Your task to perform on an android device: uninstall "Messages" Image 0: 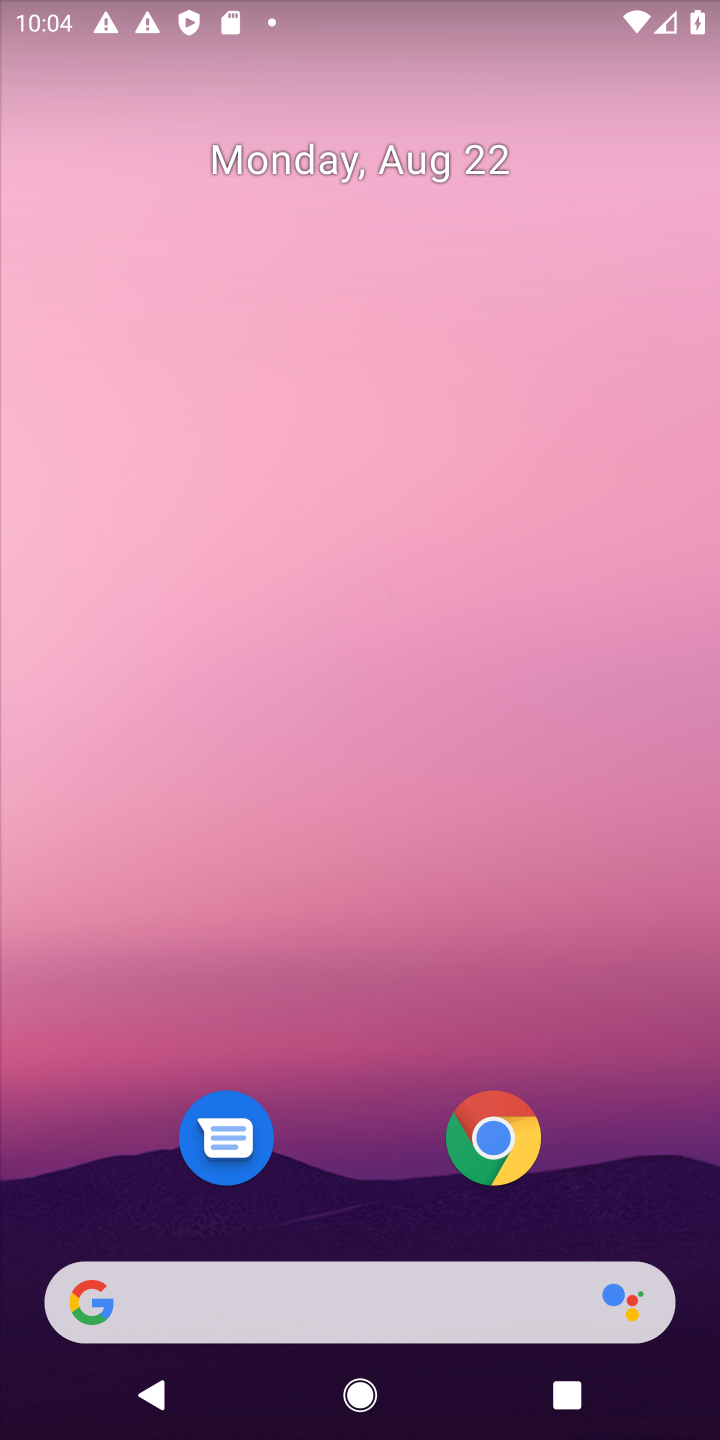
Step 0: press home button
Your task to perform on an android device: uninstall "Messages" Image 1: 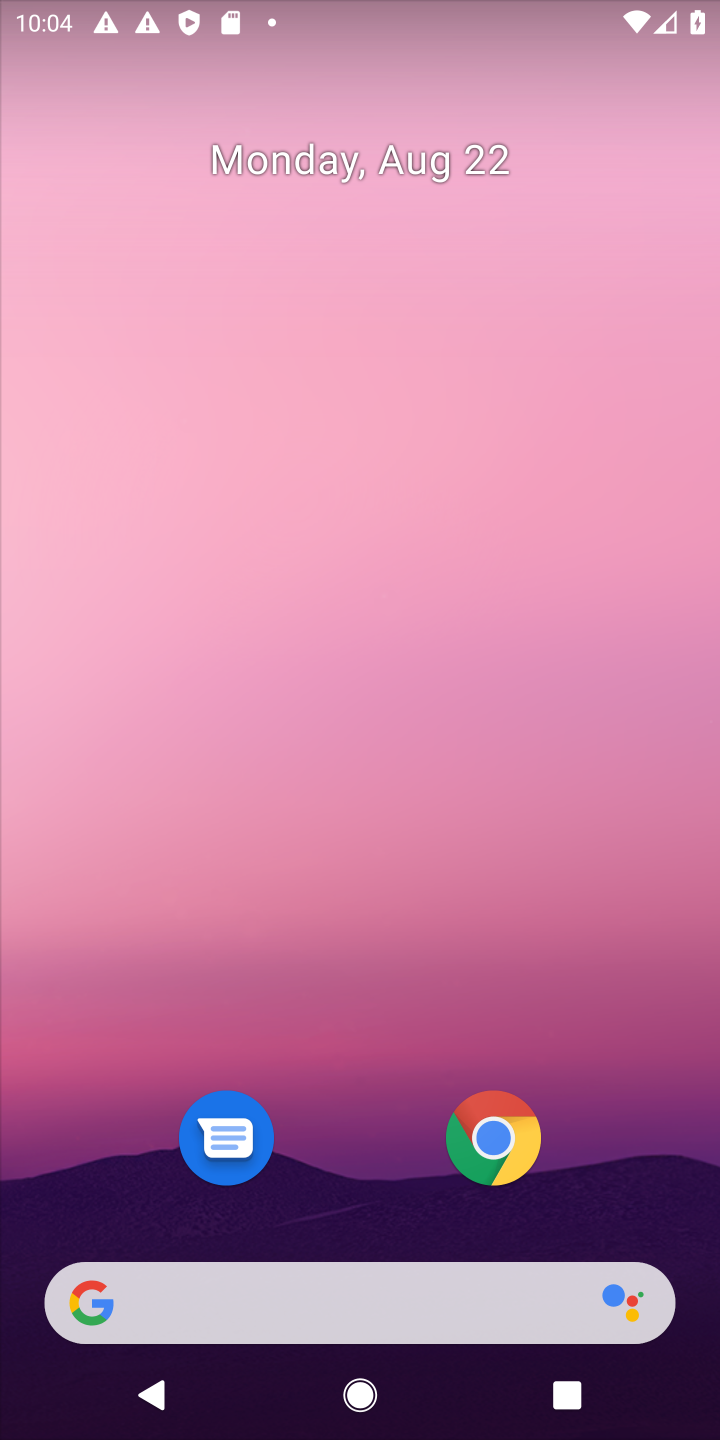
Step 1: drag from (599, 1020) to (580, 154)
Your task to perform on an android device: uninstall "Messages" Image 2: 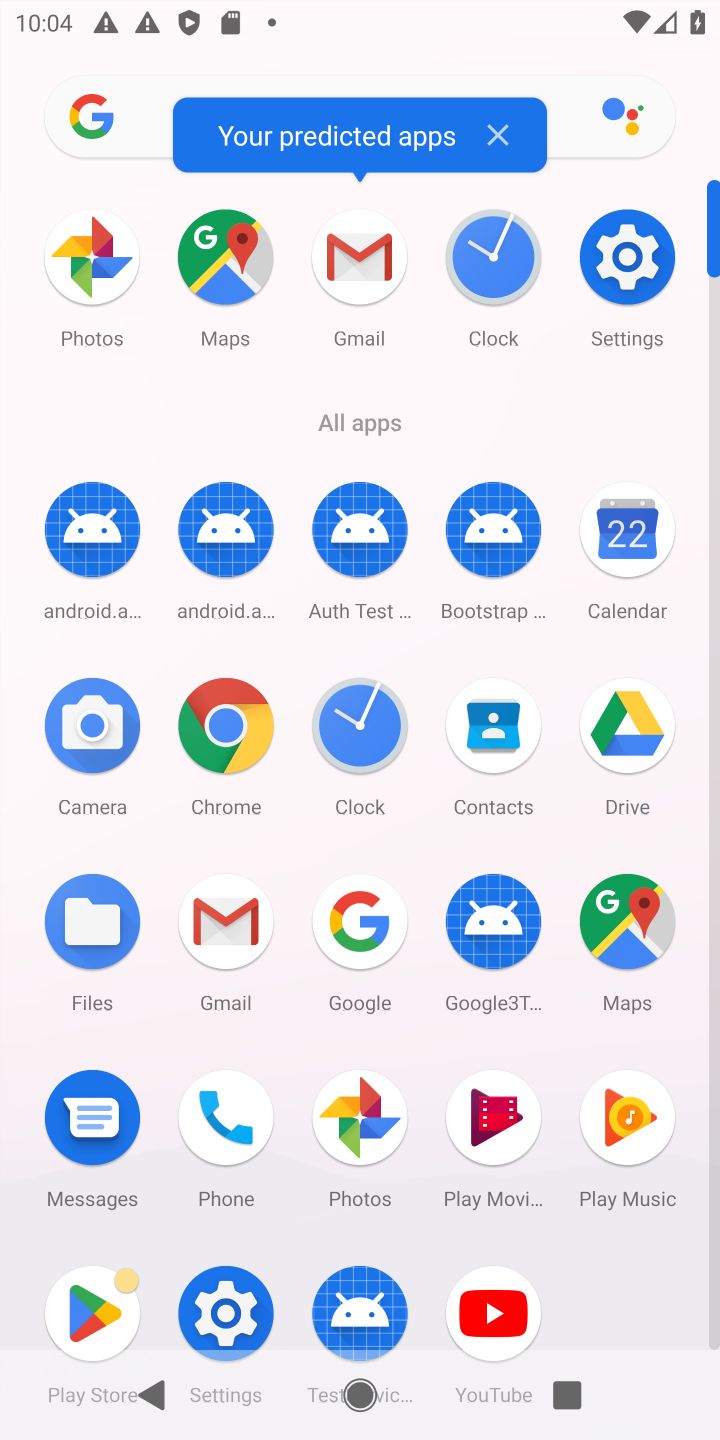
Step 2: click (94, 1298)
Your task to perform on an android device: uninstall "Messages" Image 3: 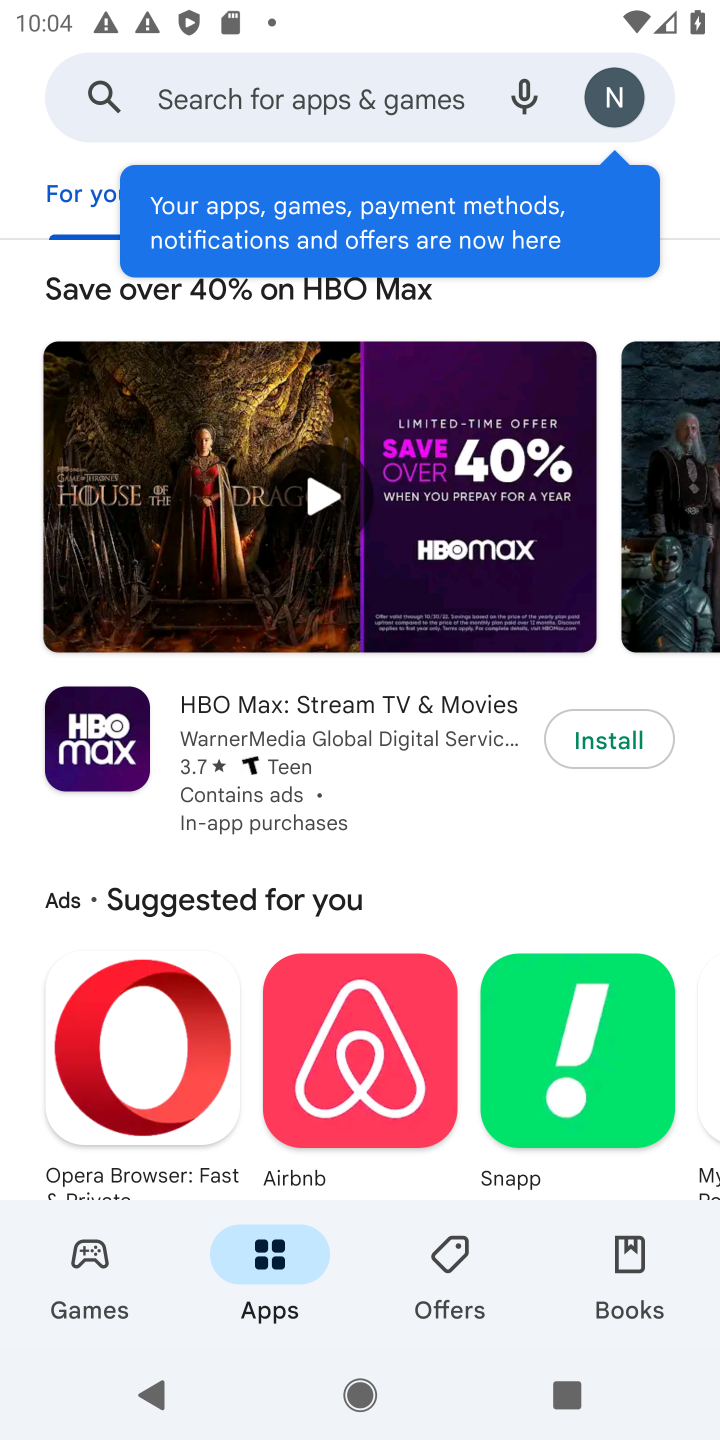
Step 3: click (251, 99)
Your task to perform on an android device: uninstall "Messages" Image 4: 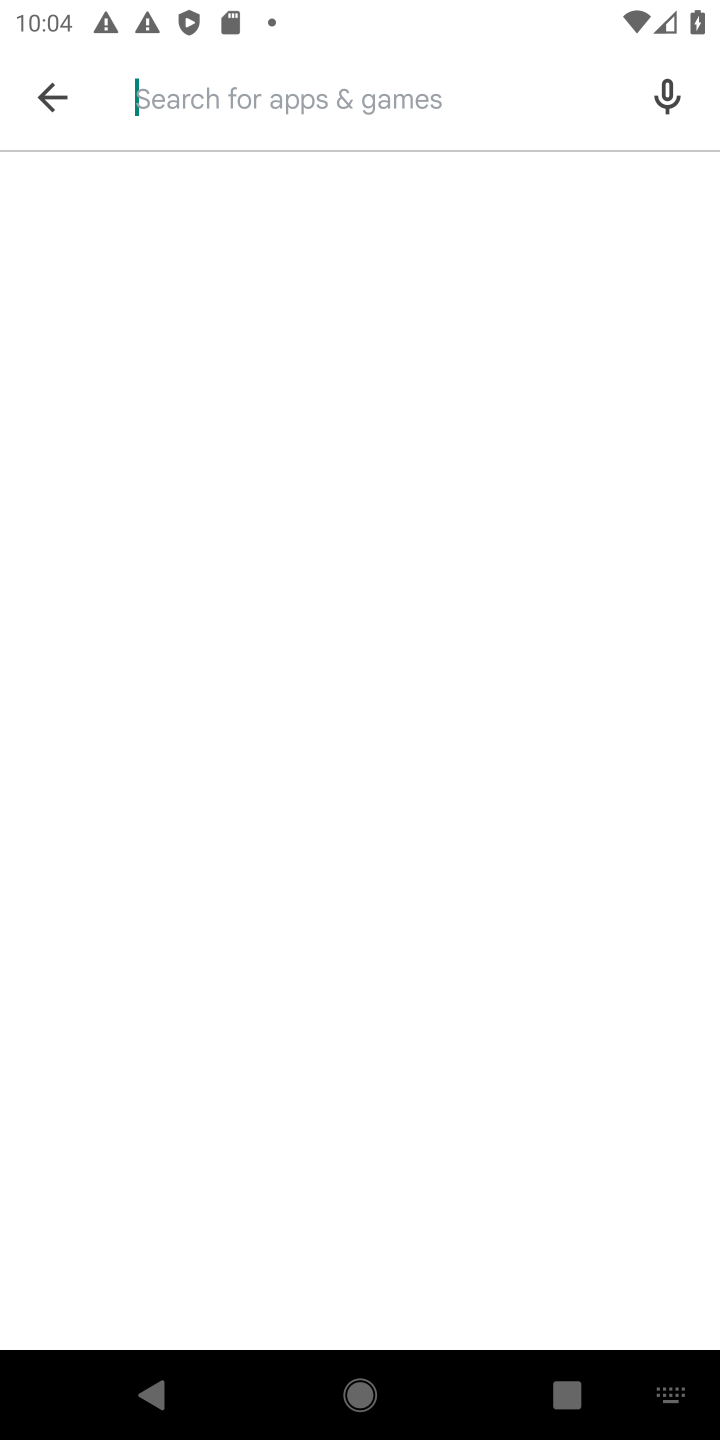
Step 4: type "messages"
Your task to perform on an android device: uninstall "Messages" Image 5: 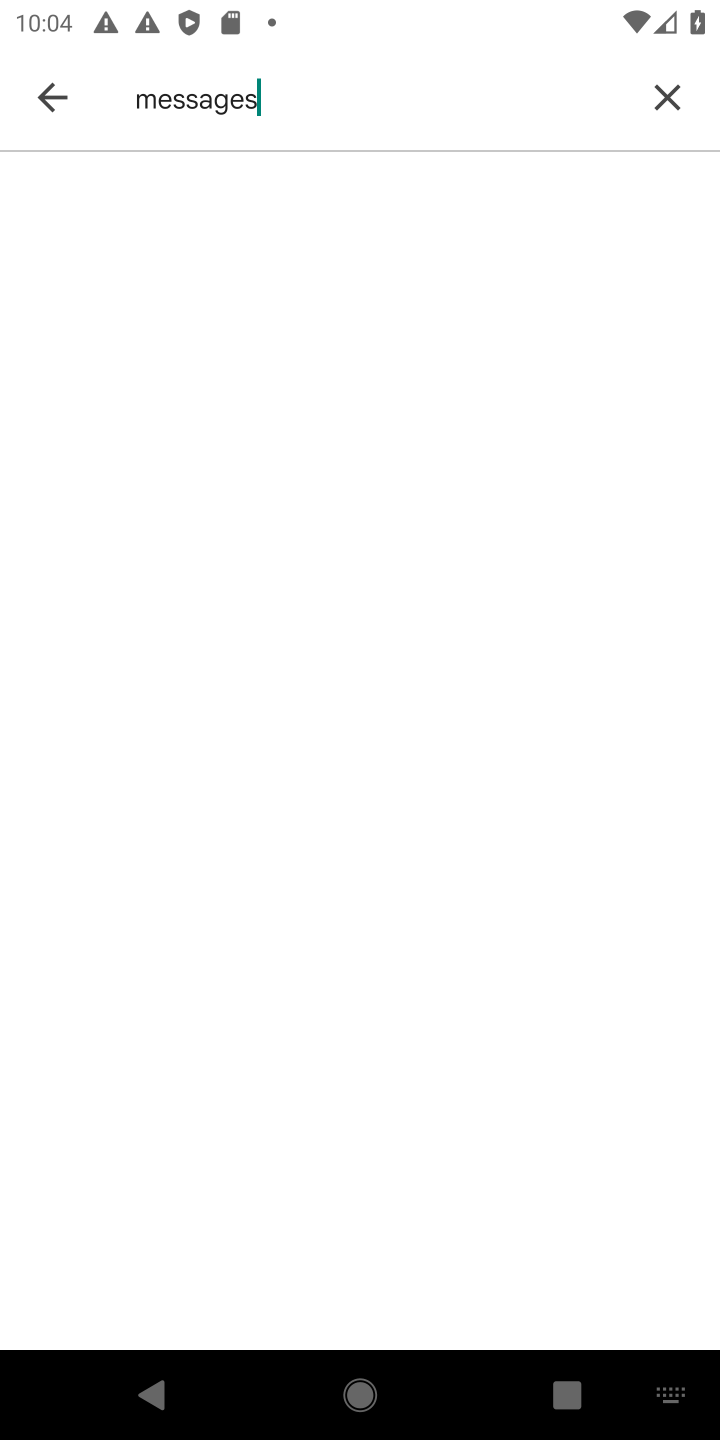
Step 5: press enter
Your task to perform on an android device: uninstall "Messages" Image 6: 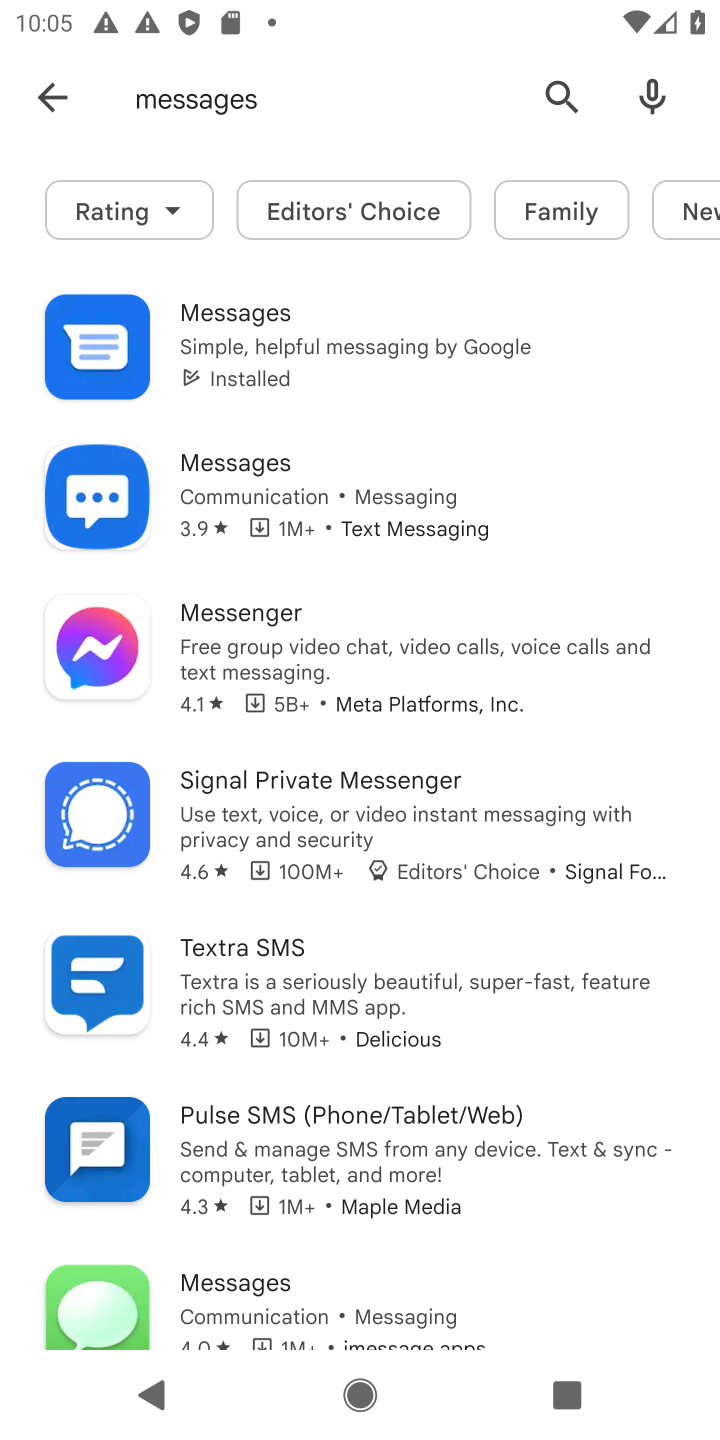
Step 6: click (314, 317)
Your task to perform on an android device: uninstall "Messages" Image 7: 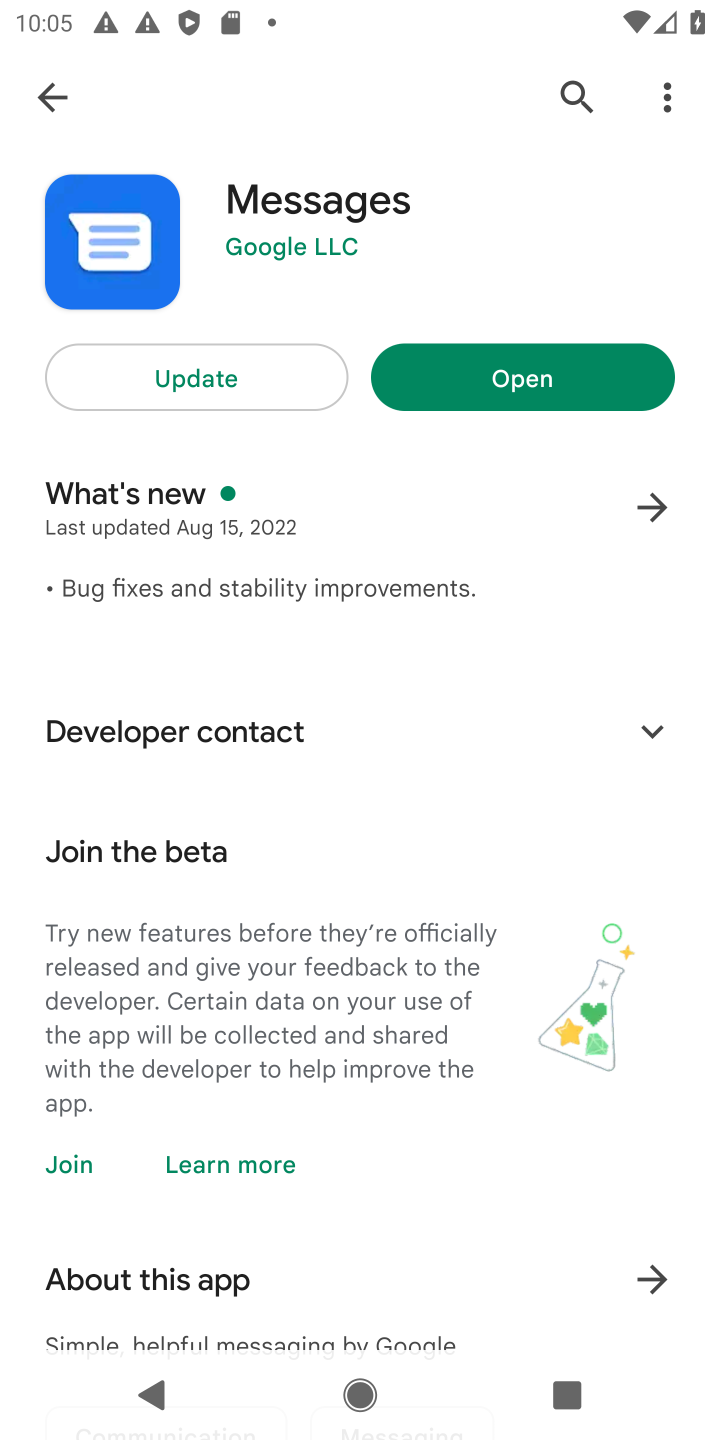
Step 7: task complete